Your task to perform on an android device: Show me popular videos on Youtube Image 0: 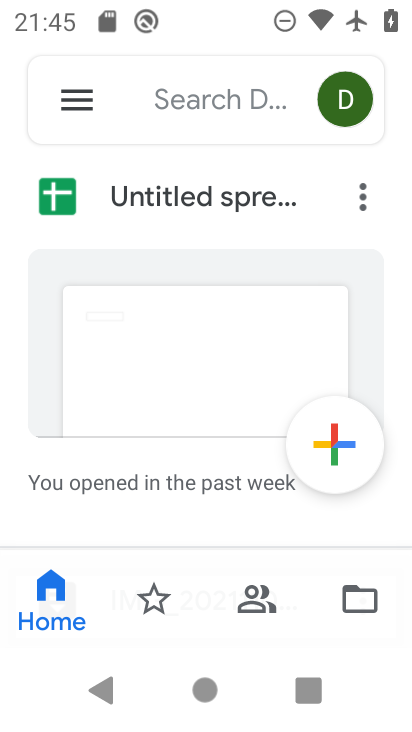
Step 0: press home button
Your task to perform on an android device: Show me popular videos on Youtube Image 1: 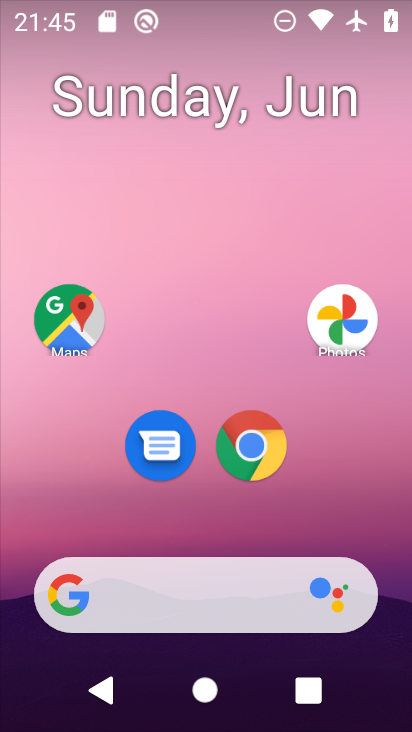
Step 1: drag from (301, 499) to (280, 79)
Your task to perform on an android device: Show me popular videos on Youtube Image 2: 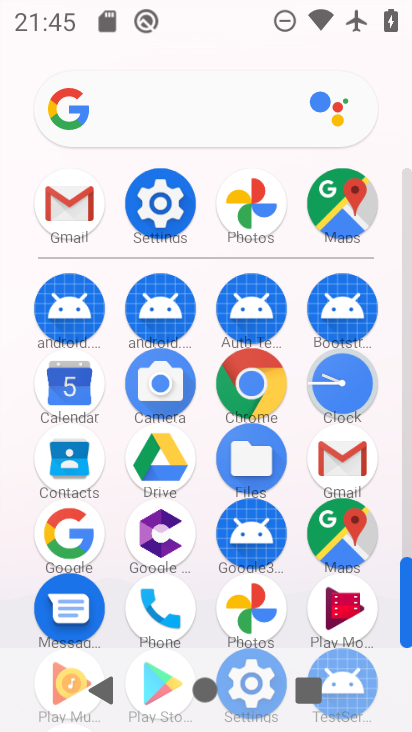
Step 2: drag from (302, 619) to (227, 174)
Your task to perform on an android device: Show me popular videos on Youtube Image 3: 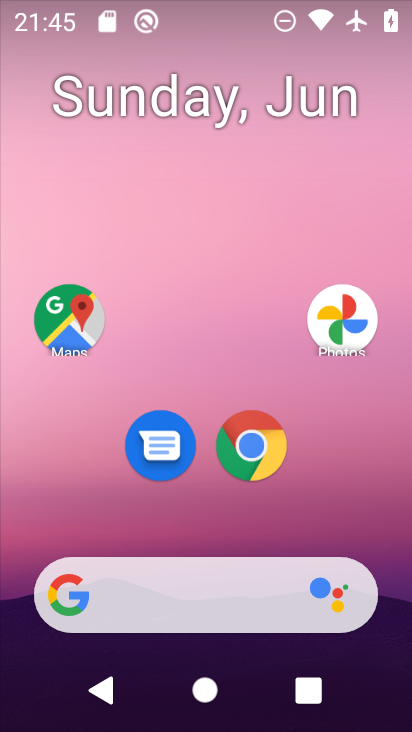
Step 3: drag from (355, 540) to (327, 14)
Your task to perform on an android device: Show me popular videos on Youtube Image 4: 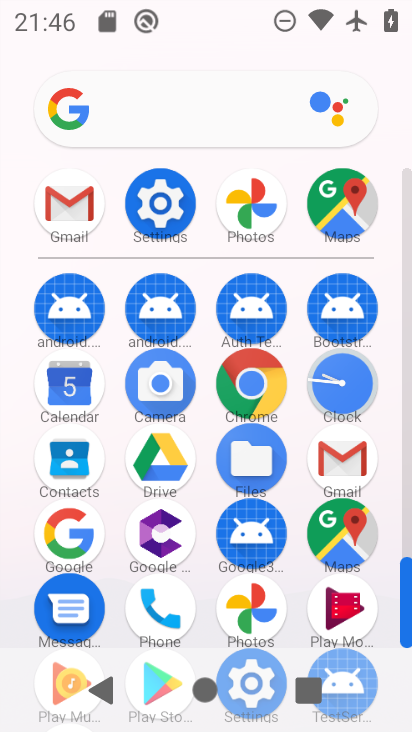
Step 4: drag from (304, 496) to (213, 2)
Your task to perform on an android device: Show me popular videos on Youtube Image 5: 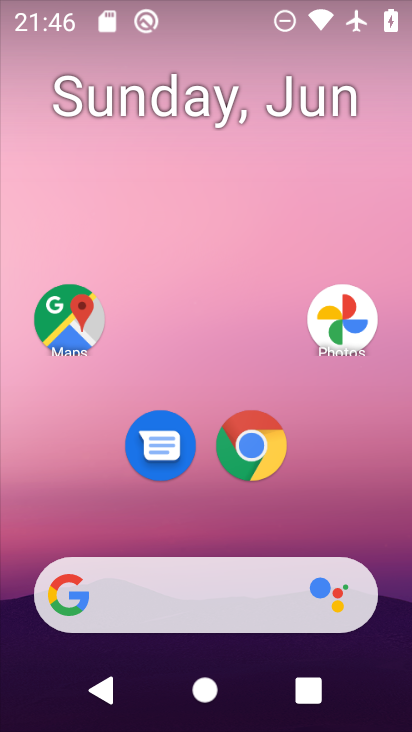
Step 5: drag from (326, 514) to (296, 29)
Your task to perform on an android device: Show me popular videos on Youtube Image 6: 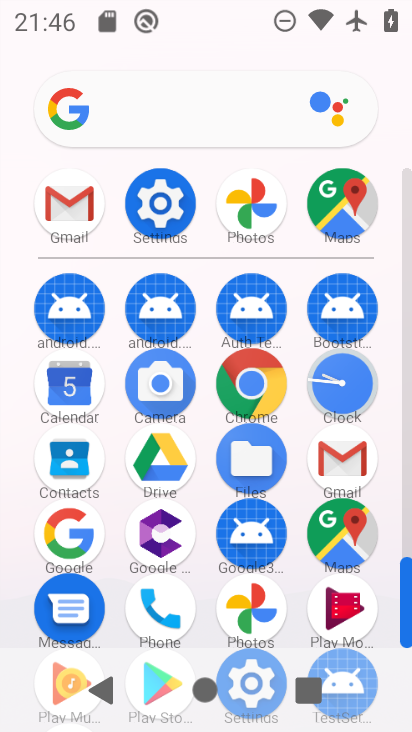
Step 6: drag from (13, 613) to (29, 0)
Your task to perform on an android device: Show me popular videos on Youtube Image 7: 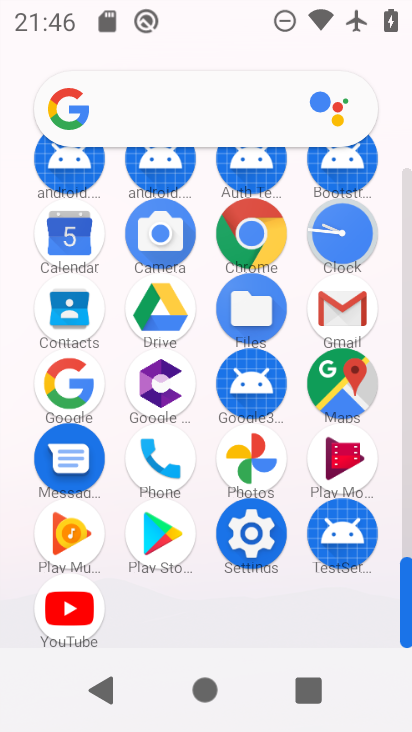
Step 7: click (71, 625)
Your task to perform on an android device: Show me popular videos on Youtube Image 8: 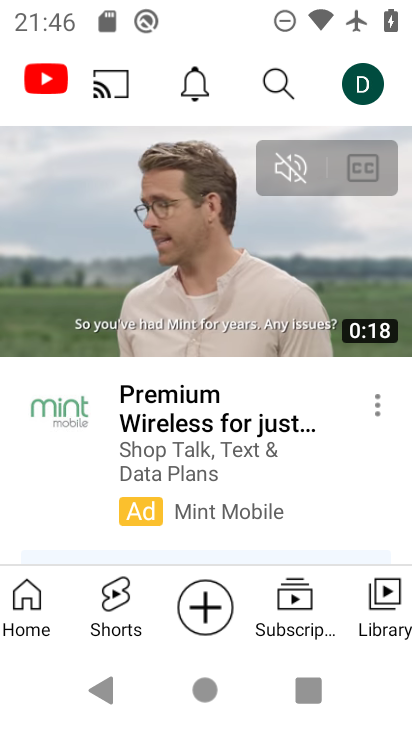
Step 8: click (22, 601)
Your task to perform on an android device: Show me popular videos on Youtube Image 9: 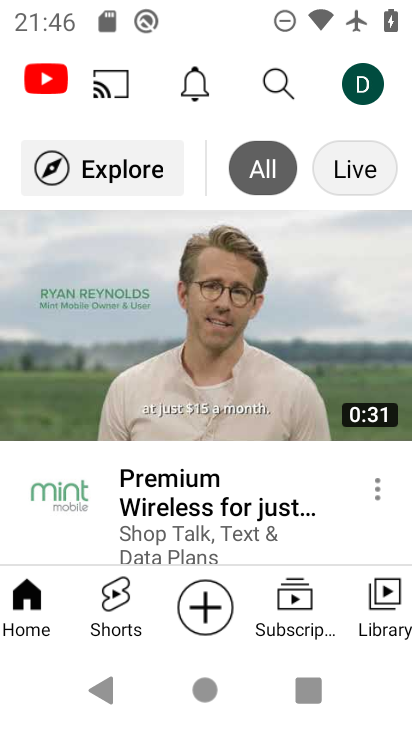
Step 9: click (114, 180)
Your task to perform on an android device: Show me popular videos on Youtube Image 10: 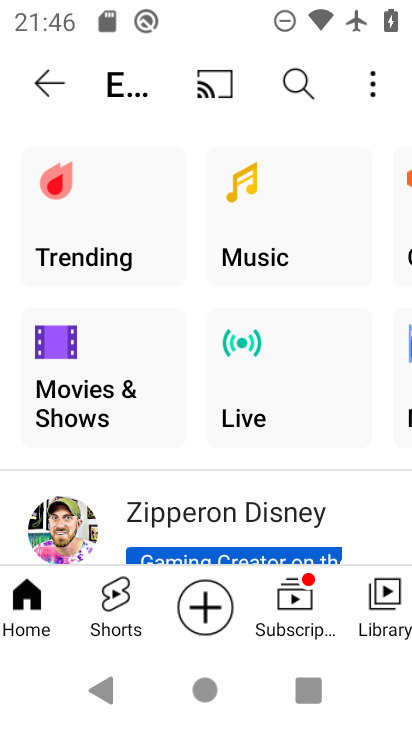
Step 10: click (52, 182)
Your task to perform on an android device: Show me popular videos on Youtube Image 11: 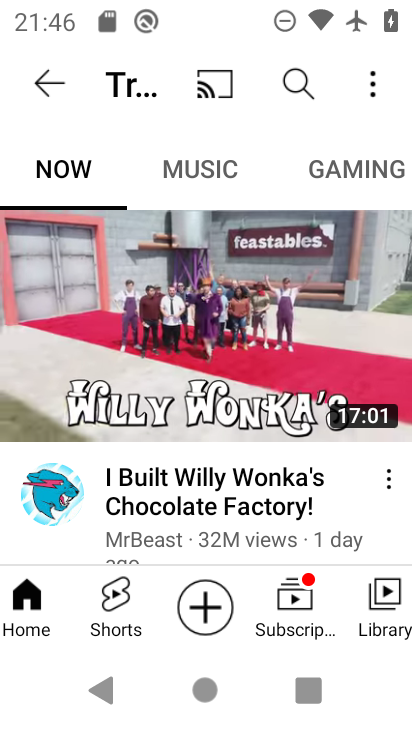
Step 11: task complete